Your task to perform on an android device: Add "logitech g910" to the cart on costco.com, then select checkout. Image 0: 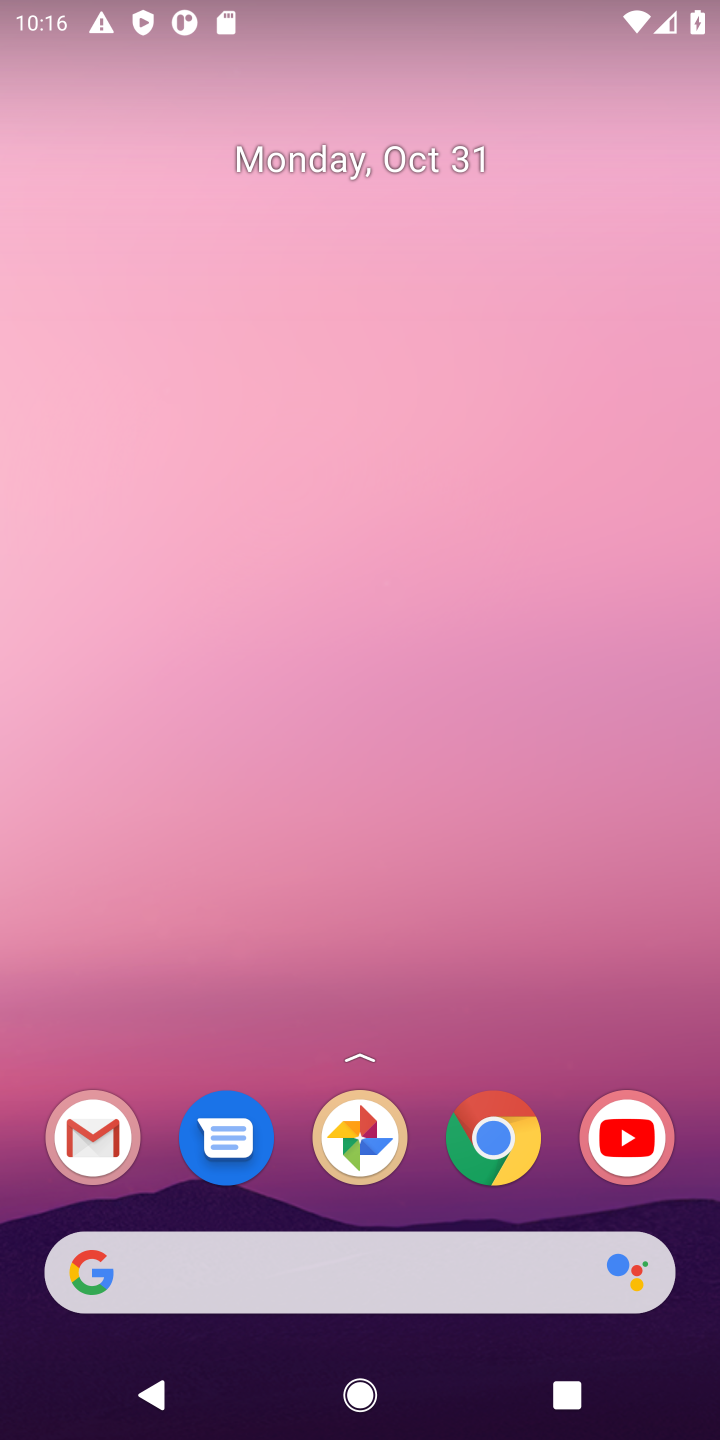
Step 0: click (480, 1178)
Your task to perform on an android device: Add "logitech g910" to the cart on costco.com, then select checkout. Image 1: 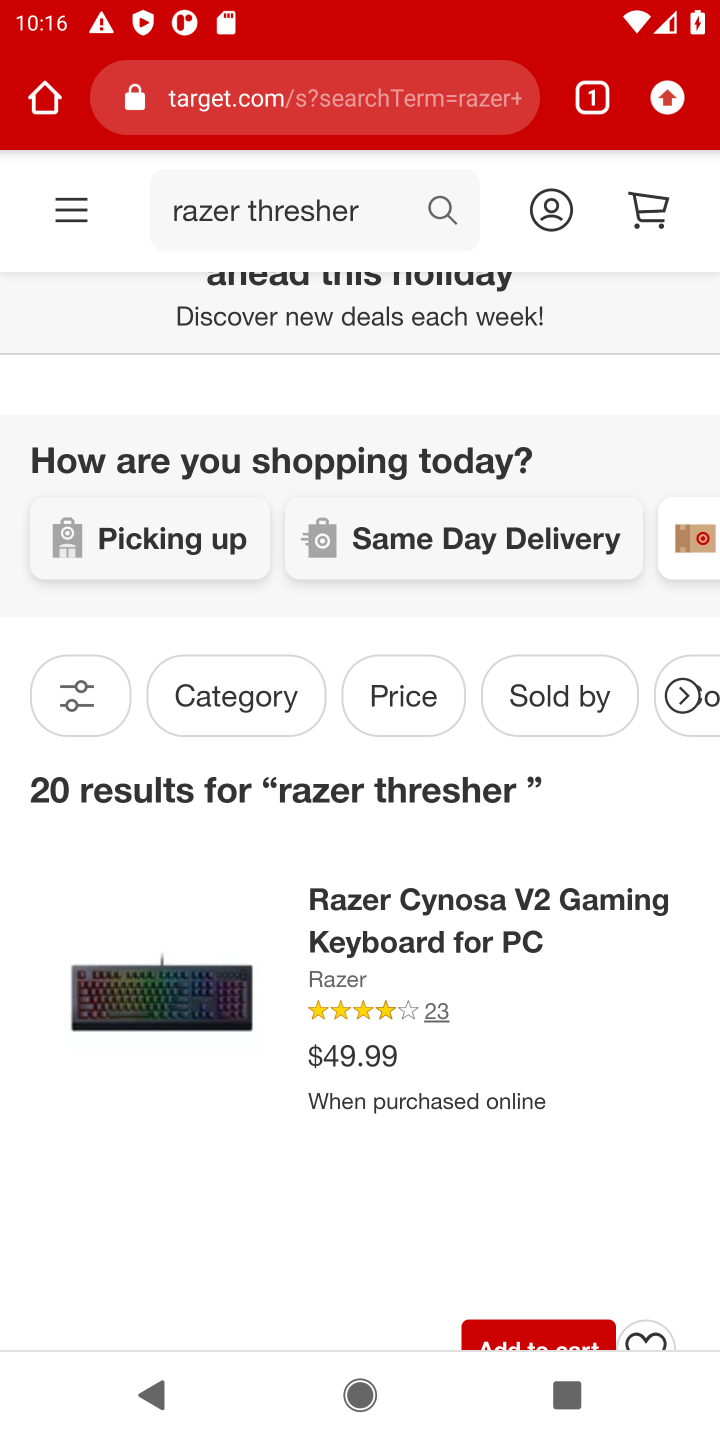
Step 1: click (273, 95)
Your task to perform on an android device: Add "logitech g910" to the cart on costco.com, then select checkout. Image 2: 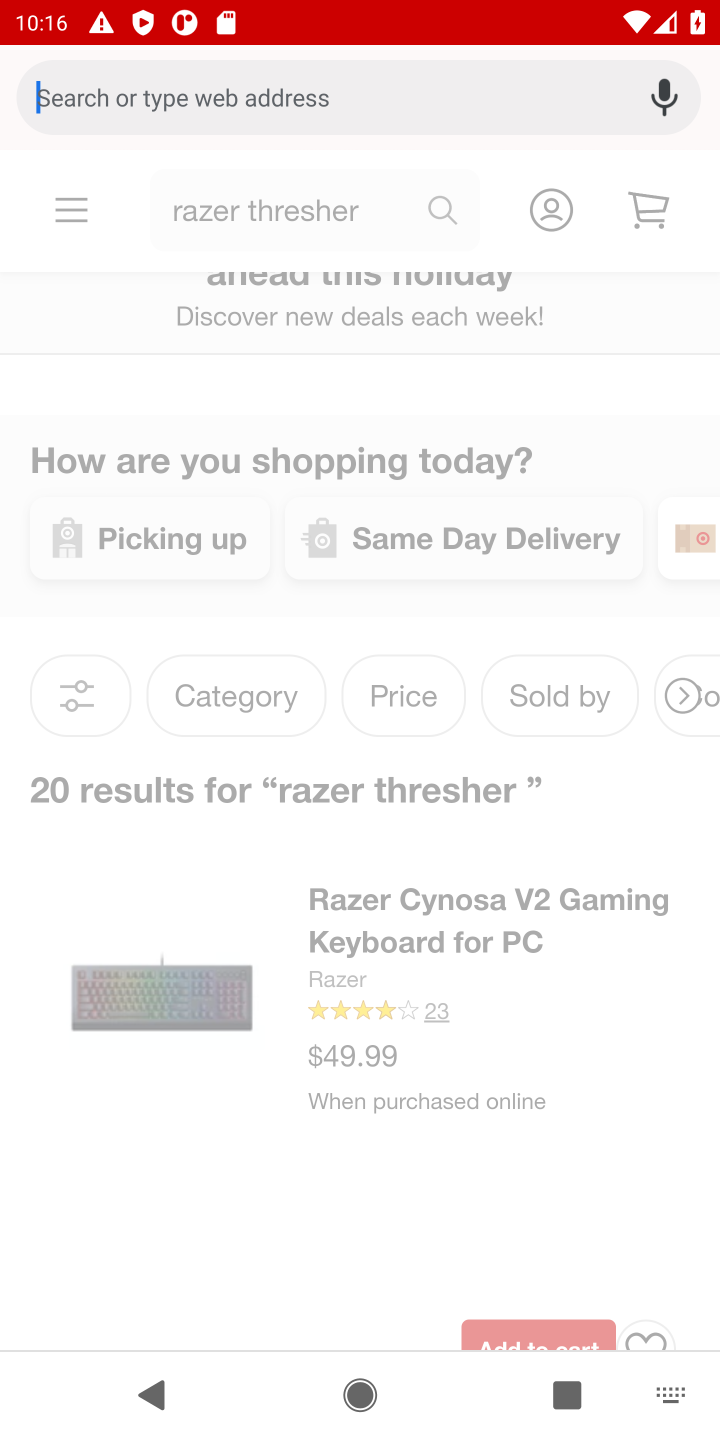
Step 2: click (273, 95)
Your task to perform on an android device: Add "logitech g910" to the cart on costco.com, then select checkout. Image 3: 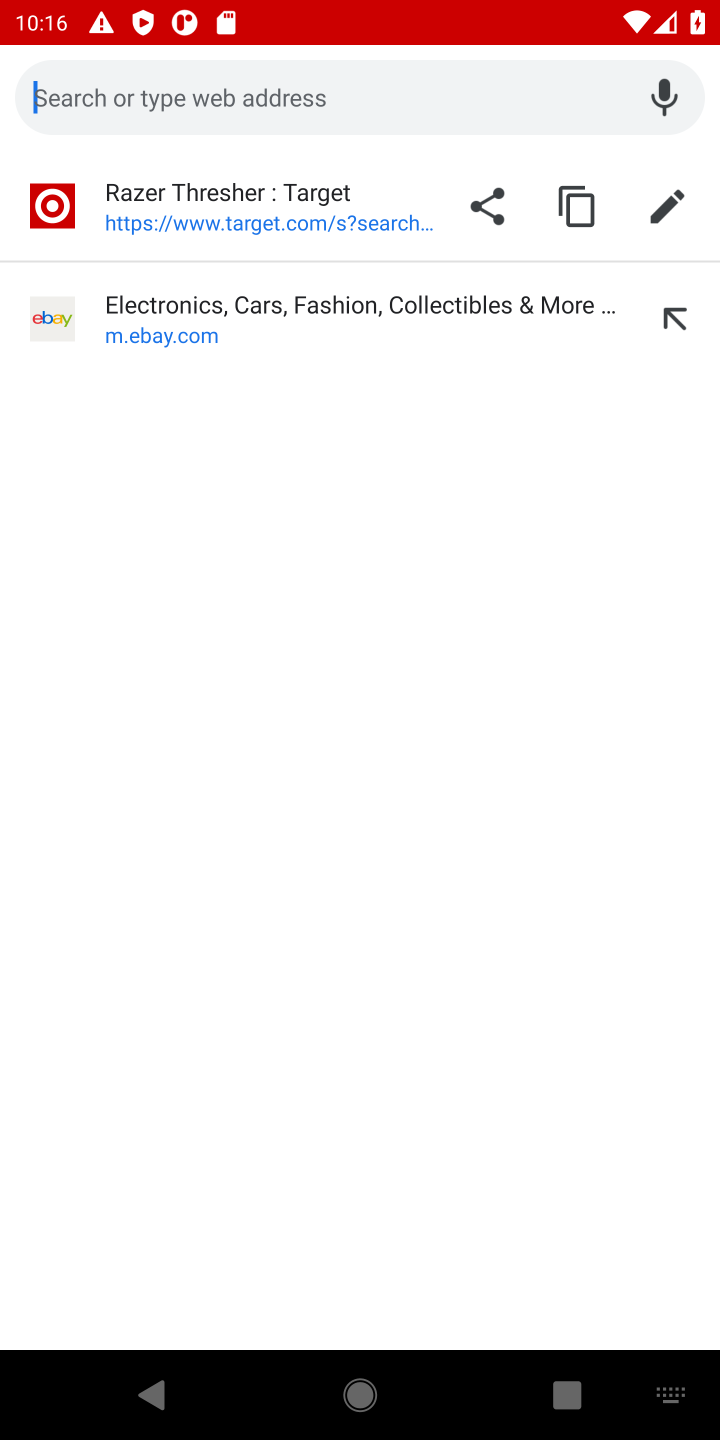
Step 3: type "costco"
Your task to perform on an android device: Add "logitech g910" to the cart on costco.com, then select checkout. Image 4: 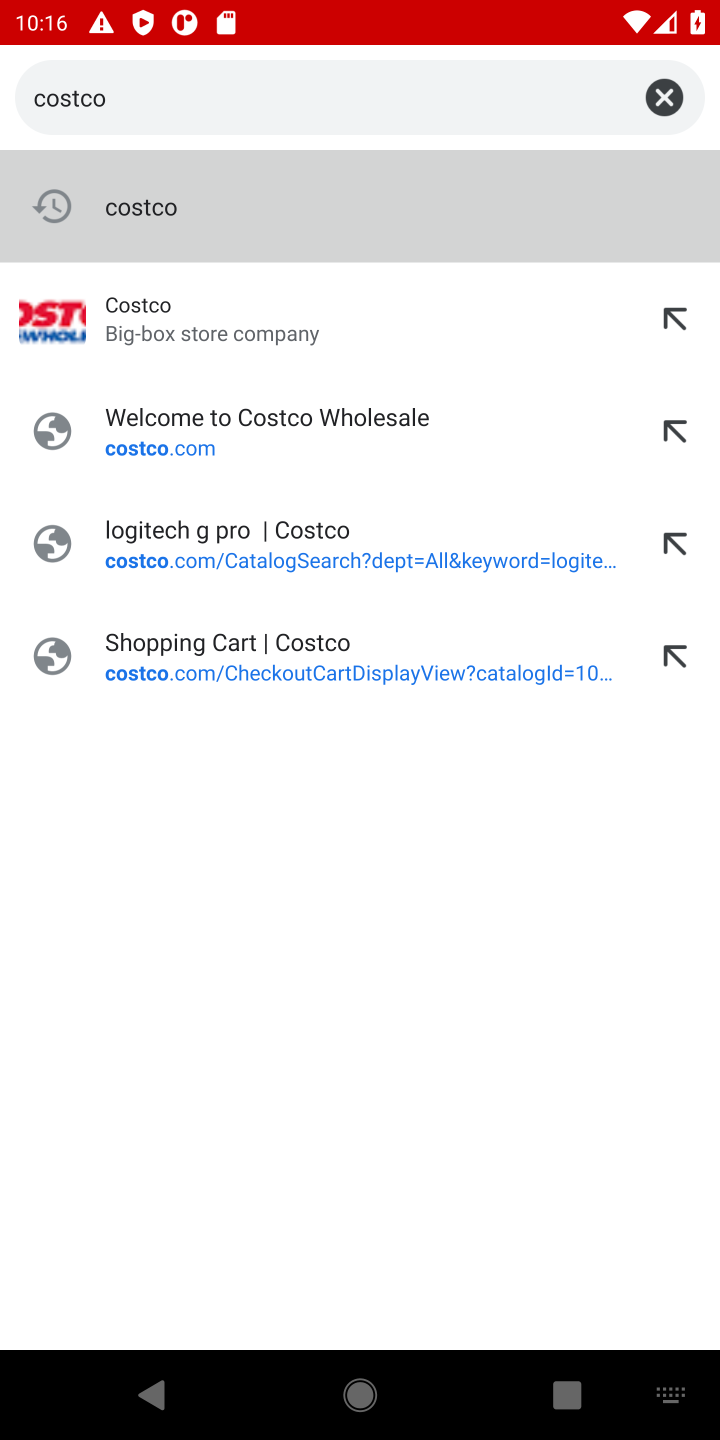
Step 4: click (352, 310)
Your task to perform on an android device: Add "logitech g910" to the cart on costco.com, then select checkout. Image 5: 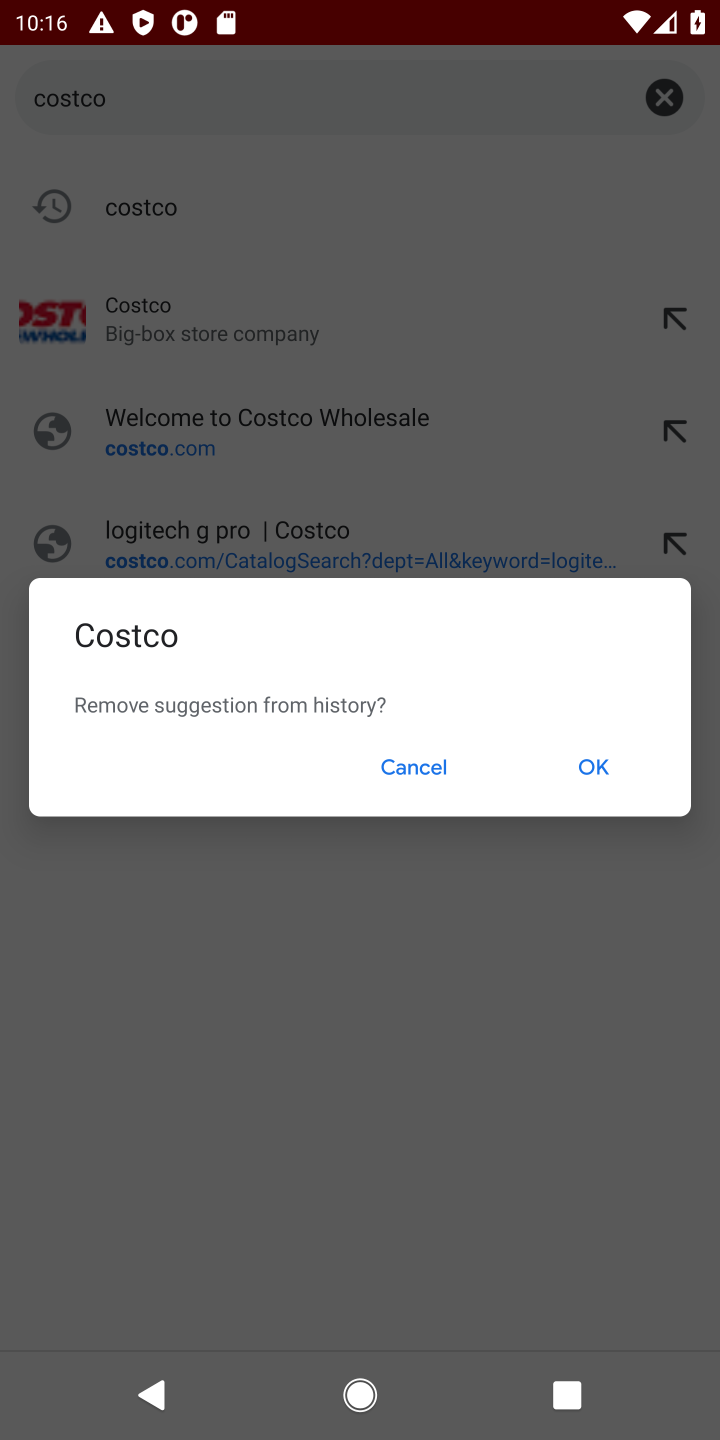
Step 5: click (580, 779)
Your task to perform on an android device: Add "logitech g910" to the cart on costco.com, then select checkout. Image 6: 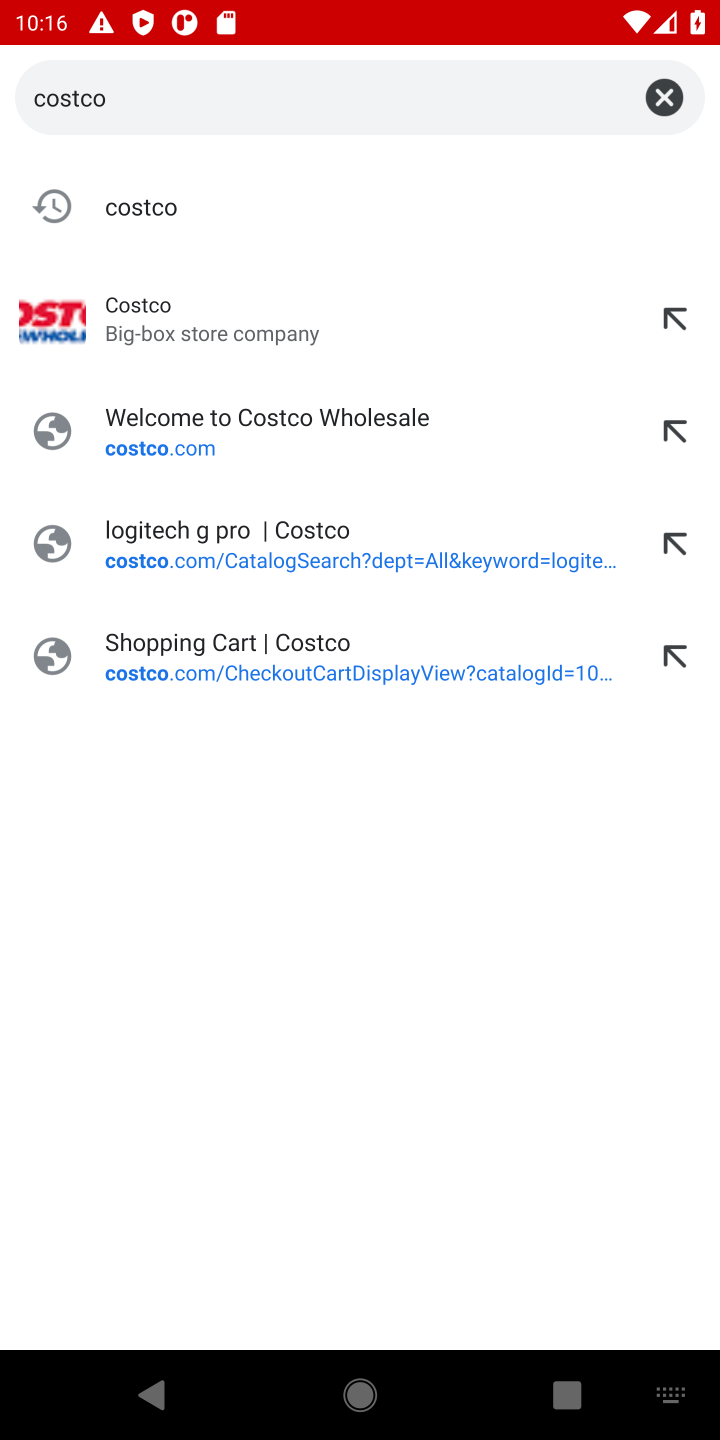
Step 6: click (177, 324)
Your task to perform on an android device: Add "logitech g910" to the cart on costco.com, then select checkout. Image 7: 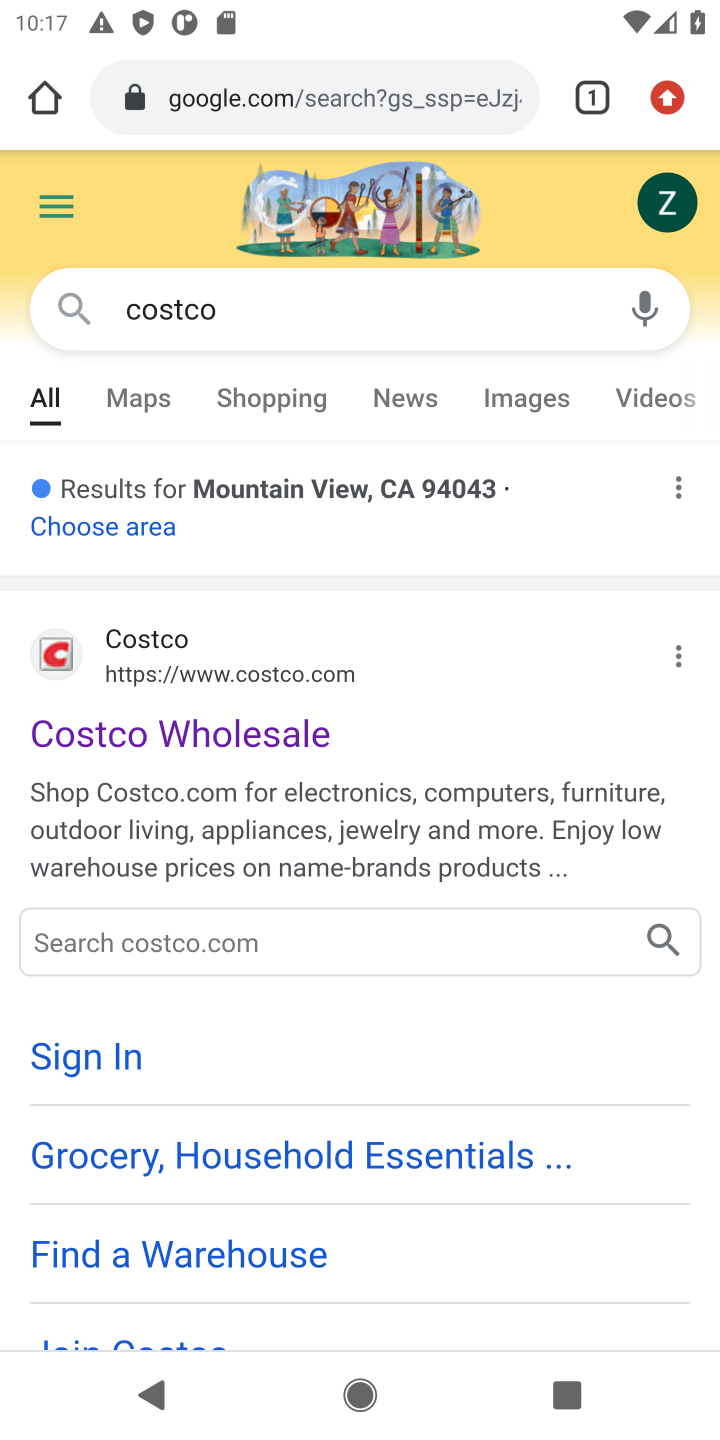
Step 7: click (135, 728)
Your task to perform on an android device: Add "logitech g910" to the cart on costco.com, then select checkout. Image 8: 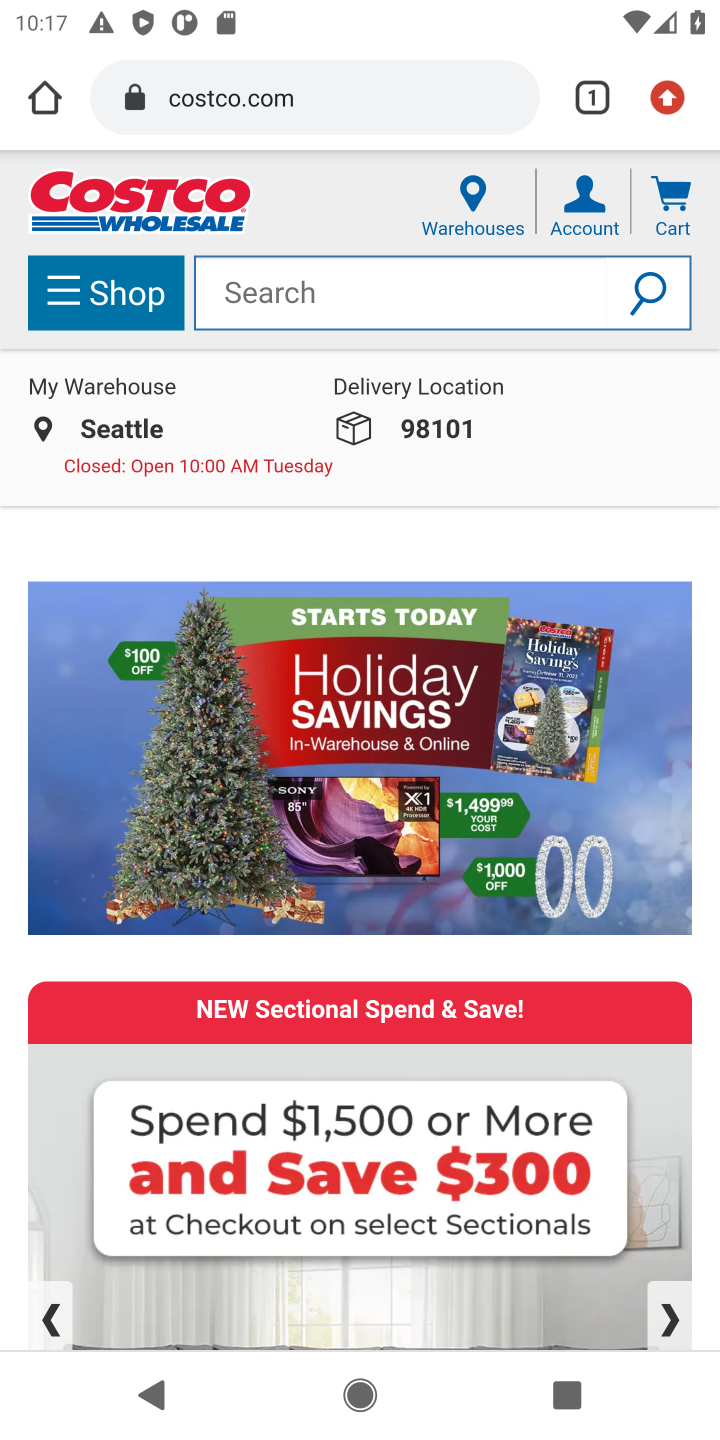
Step 8: click (440, 294)
Your task to perform on an android device: Add "logitech g910" to the cart on costco.com, then select checkout. Image 9: 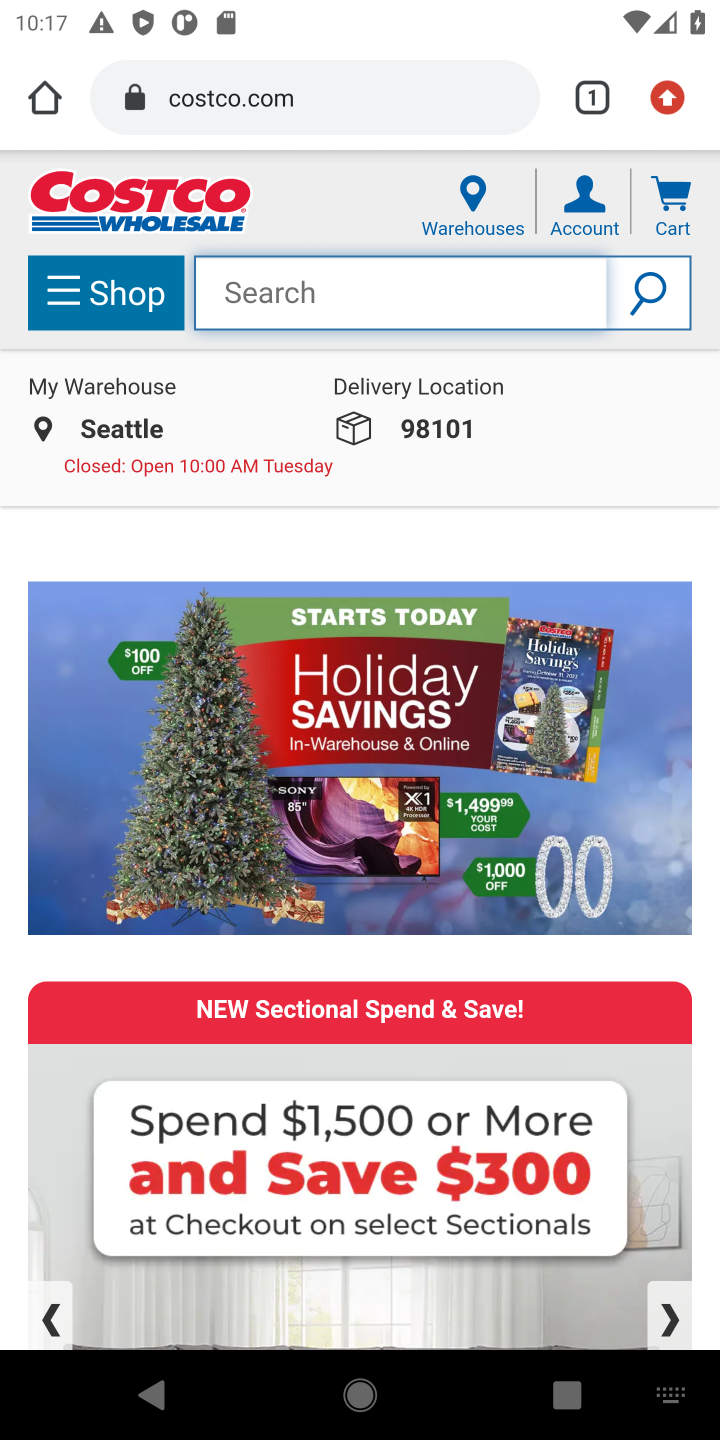
Step 9: type "logitech g910"
Your task to perform on an android device: Add "logitech g910" to the cart on costco.com, then select checkout. Image 10: 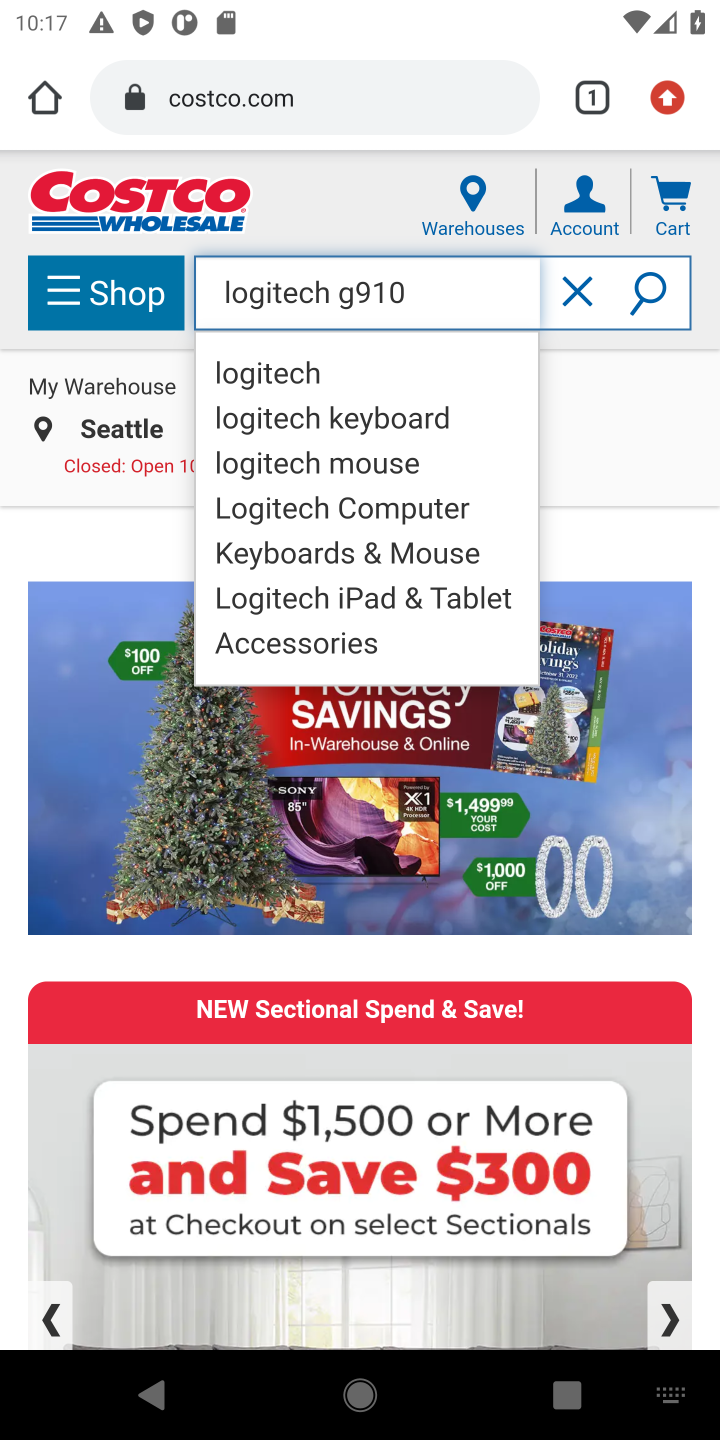
Step 10: click (636, 279)
Your task to perform on an android device: Add "logitech g910" to the cart on costco.com, then select checkout. Image 11: 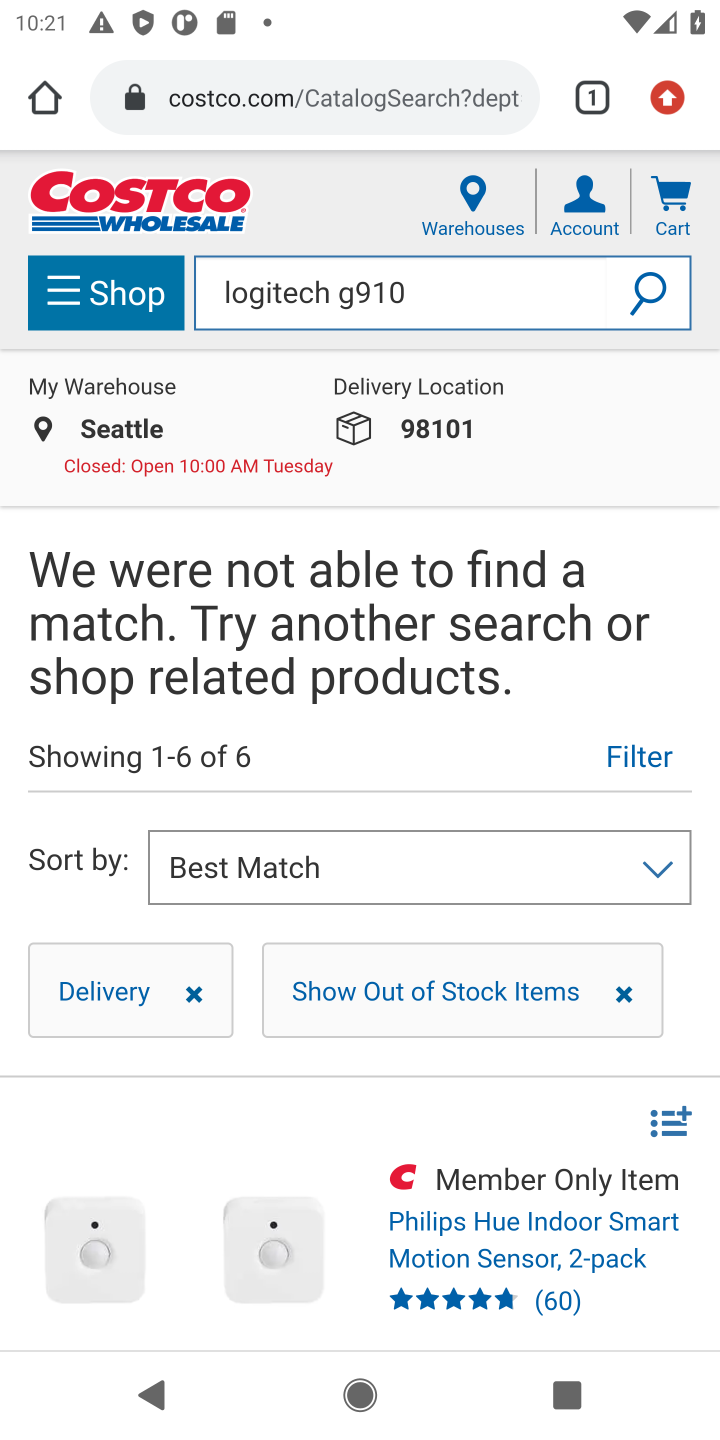
Step 11: task complete